Your task to perform on an android device: Search for sushi restaurants on Maps Image 0: 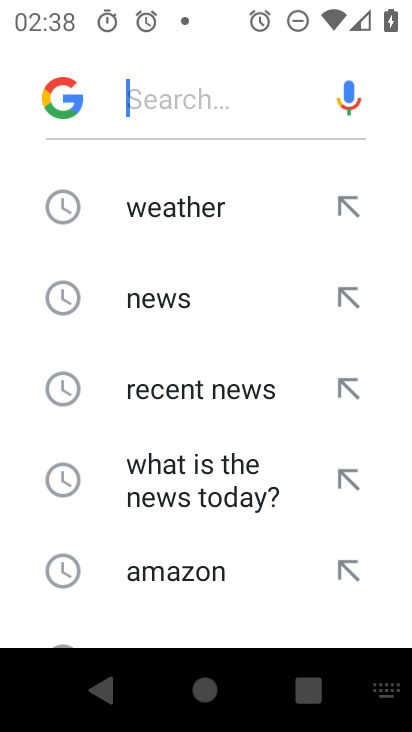
Step 0: press home button
Your task to perform on an android device: Search for sushi restaurants on Maps Image 1: 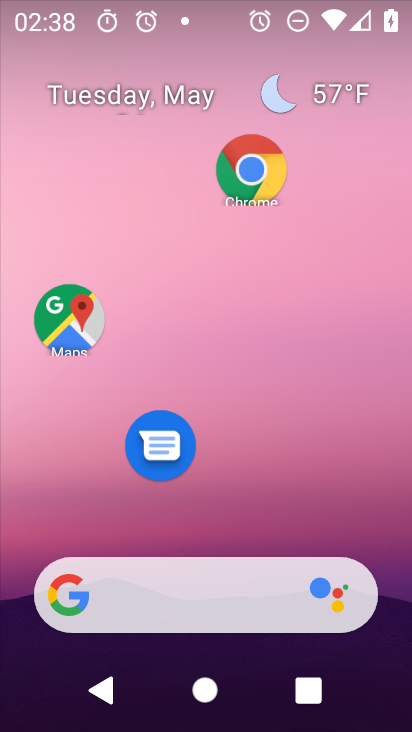
Step 1: drag from (225, 727) to (188, 8)
Your task to perform on an android device: Search for sushi restaurants on Maps Image 2: 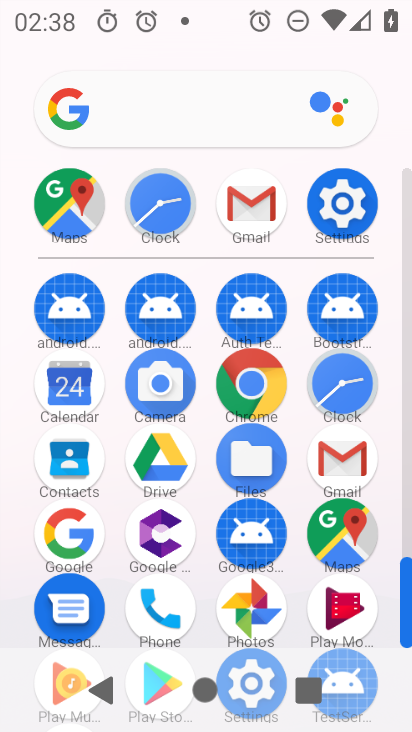
Step 2: click (358, 522)
Your task to perform on an android device: Search for sushi restaurants on Maps Image 3: 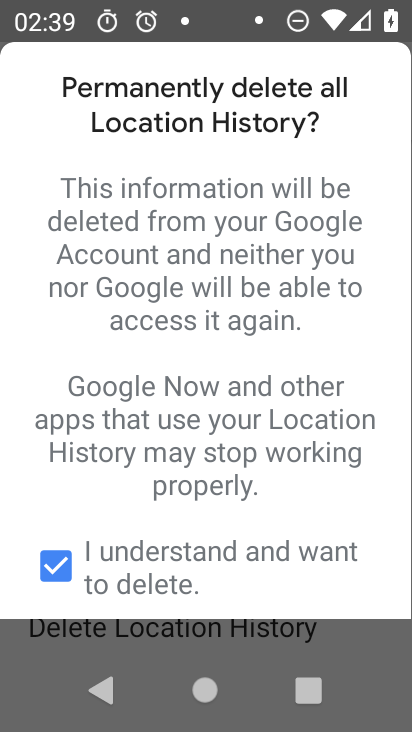
Step 3: press back button
Your task to perform on an android device: Search for sushi restaurants on Maps Image 4: 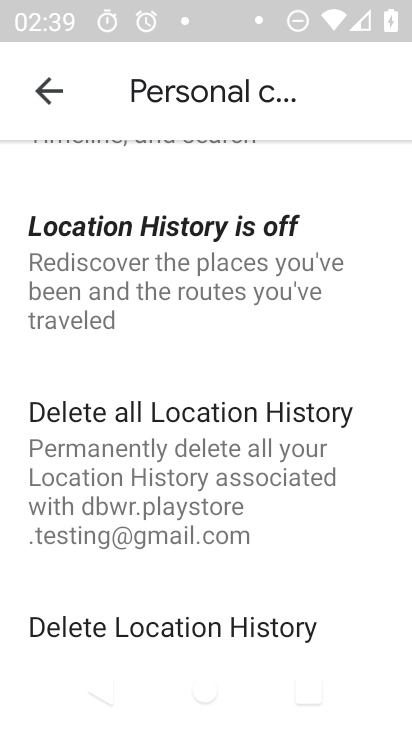
Step 4: click (43, 82)
Your task to perform on an android device: Search for sushi restaurants on Maps Image 5: 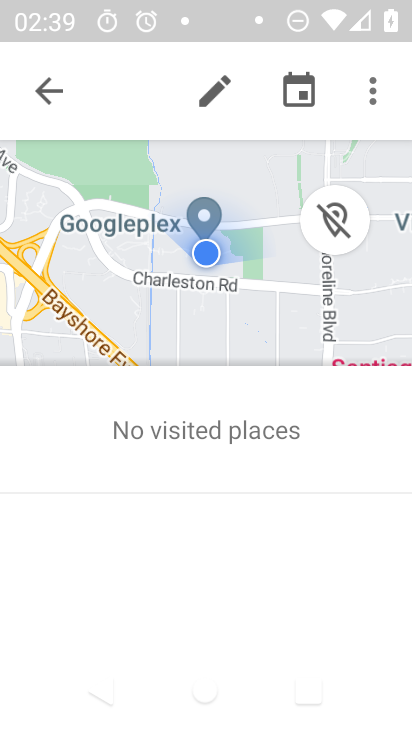
Step 5: click (43, 82)
Your task to perform on an android device: Search for sushi restaurants on Maps Image 6: 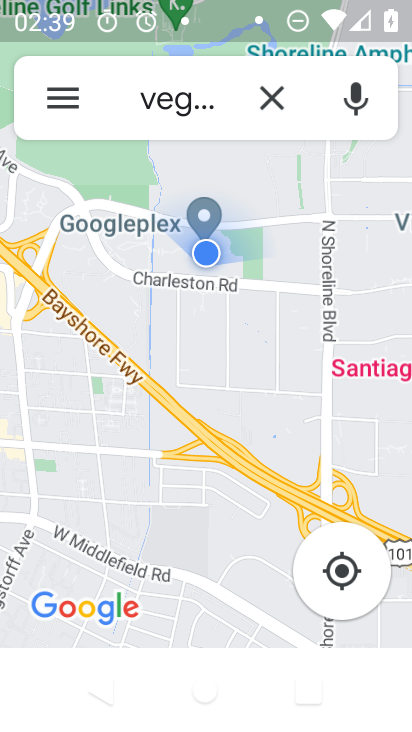
Step 6: click (267, 96)
Your task to perform on an android device: Search for sushi restaurants on Maps Image 7: 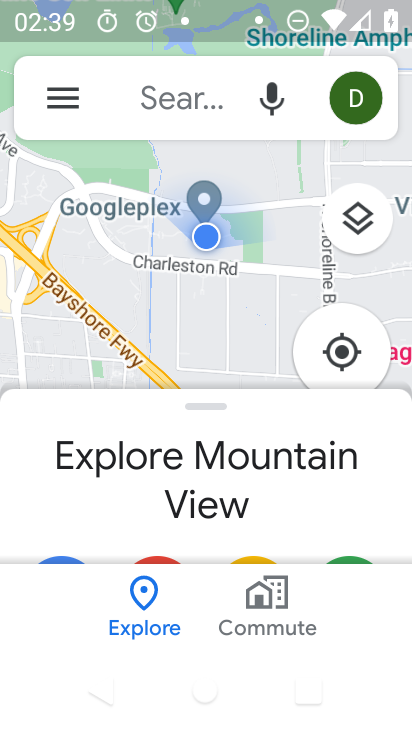
Step 7: click (168, 85)
Your task to perform on an android device: Search for sushi restaurants on Maps Image 8: 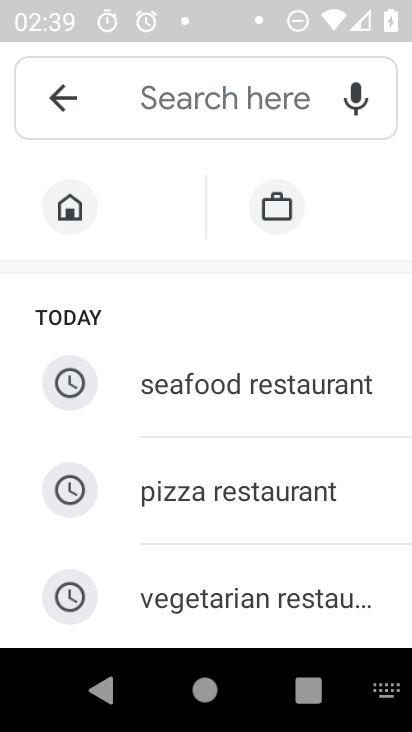
Step 8: type "sushi restaurants"
Your task to perform on an android device: Search for sushi restaurants on Maps Image 9: 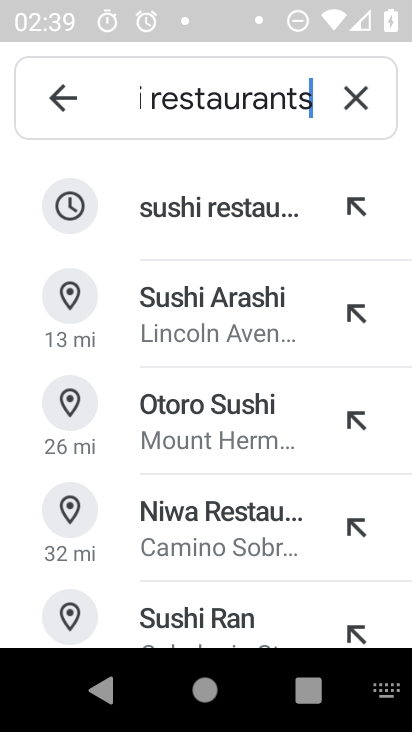
Step 9: click (219, 199)
Your task to perform on an android device: Search for sushi restaurants on Maps Image 10: 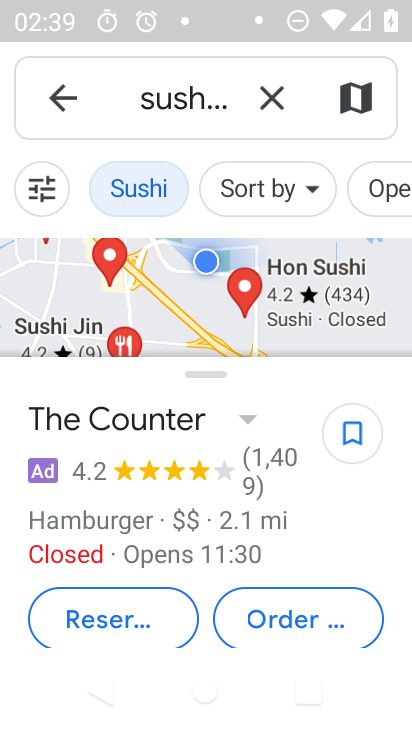
Step 10: task complete